Your task to perform on an android device: turn on bluetooth scan Image 0: 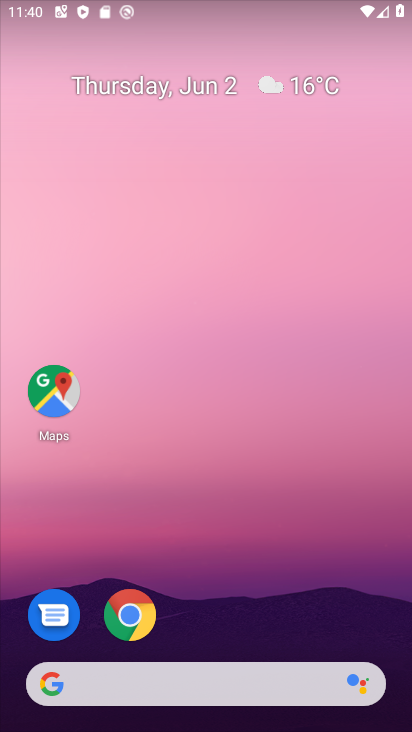
Step 0: drag from (251, 627) to (223, 255)
Your task to perform on an android device: turn on bluetooth scan Image 1: 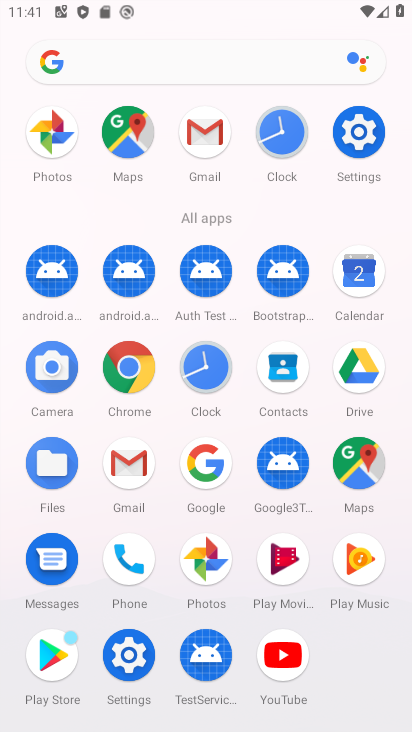
Step 1: drag from (256, 536) to (297, 580)
Your task to perform on an android device: turn on bluetooth scan Image 2: 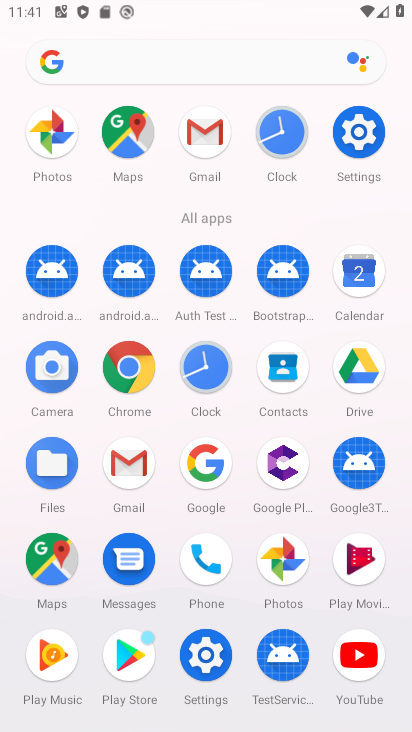
Step 2: click (360, 133)
Your task to perform on an android device: turn on bluetooth scan Image 3: 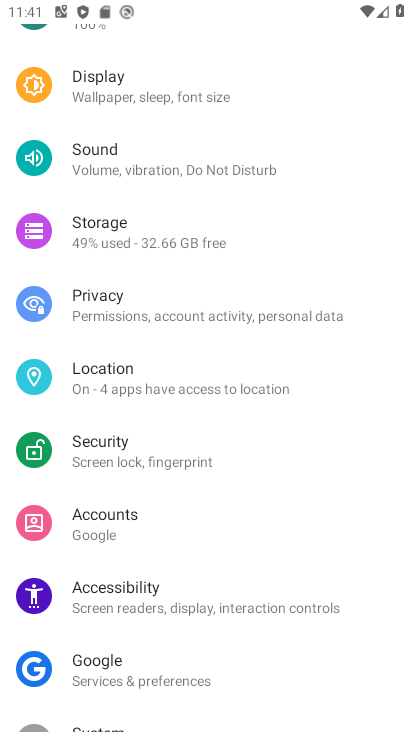
Step 3: drag from (125, 114) to (154, 594)
Your task to perform on an android device: turn on bluetooth scan Image 4: 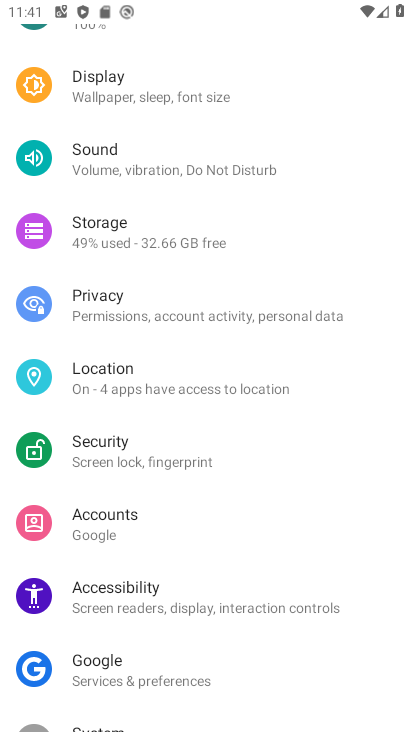
Step 4: drag from (149, 114) to (190, 439)
Your task to perform on an android device: turn on bluetooth scan Image 5: 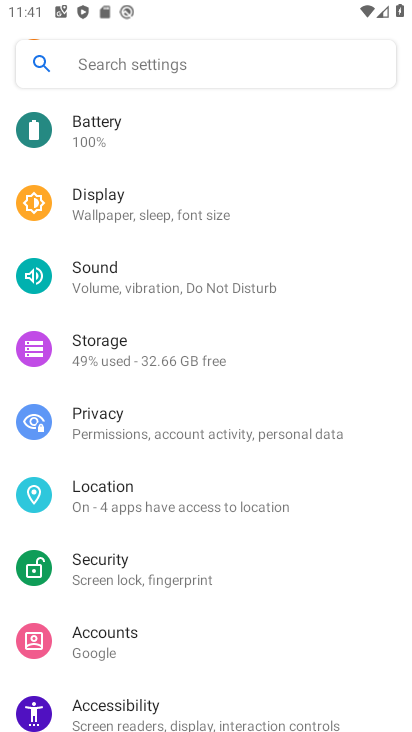
Step 5: click (209, 53)
Your task to perform on an android device: turn on bluetooth scan Image 6: 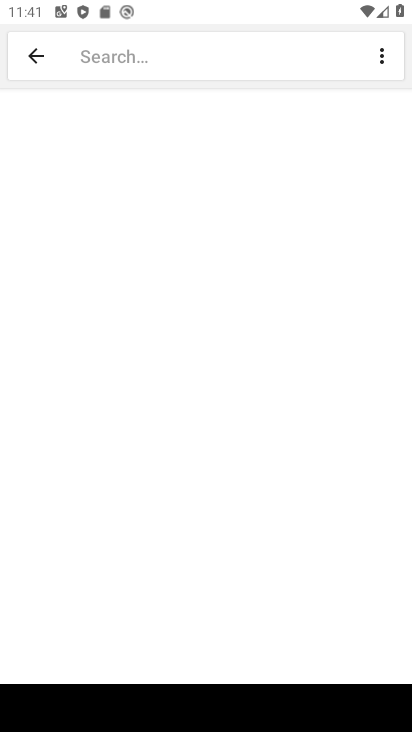
Step 6: type " bluetooth scan"
Your task to perform on an android device: turn on bluetooth scan Image 7: 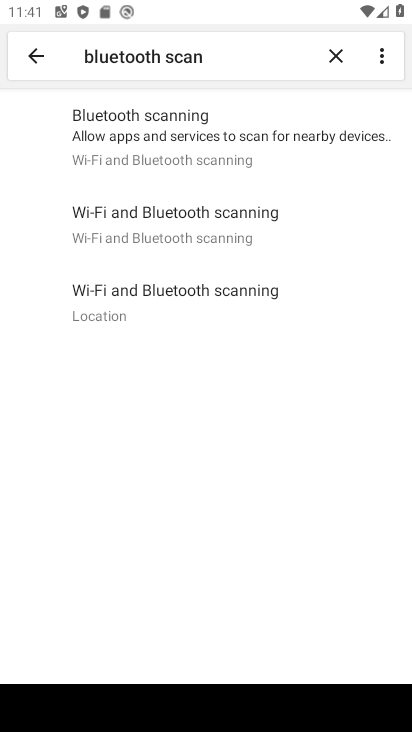
Step 7: click (189, 114)
Your task to perform on an android device: turn on bluetooth scan Image 8: 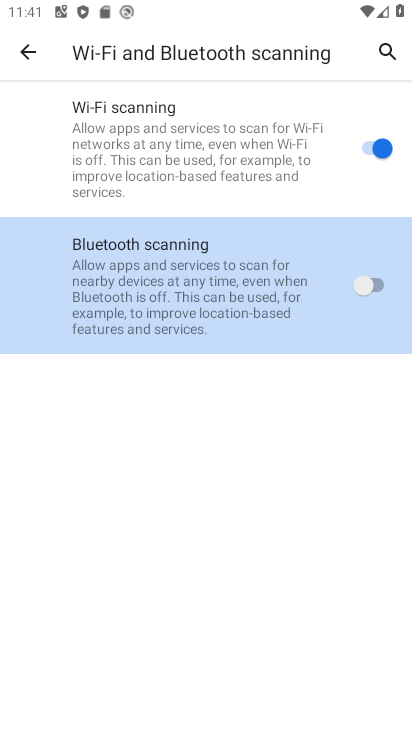
Step 8: click (361, 283)
Your task to perform on an android device: turn on bluetooth scan Image 9: 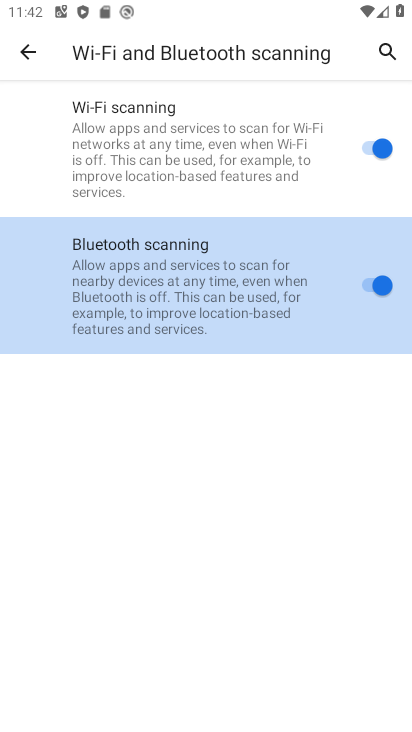
Step 9: task complete